Your task to perform on an android device: toggle pop-ups in chrome Image 0: 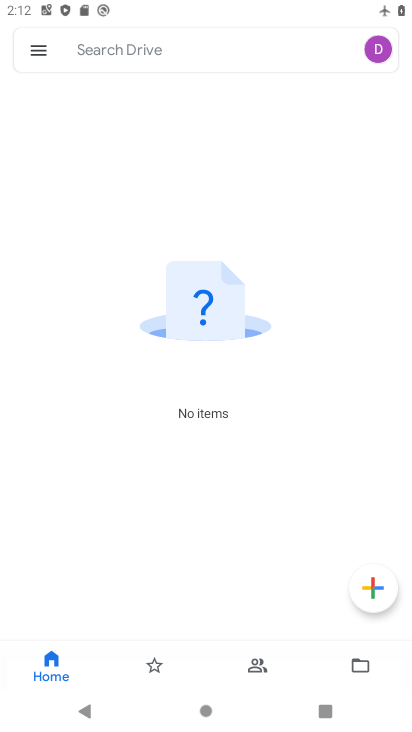
Step 0: press home button
Your task to perform on an android device: toggle pop-ups in chrome Image 1: 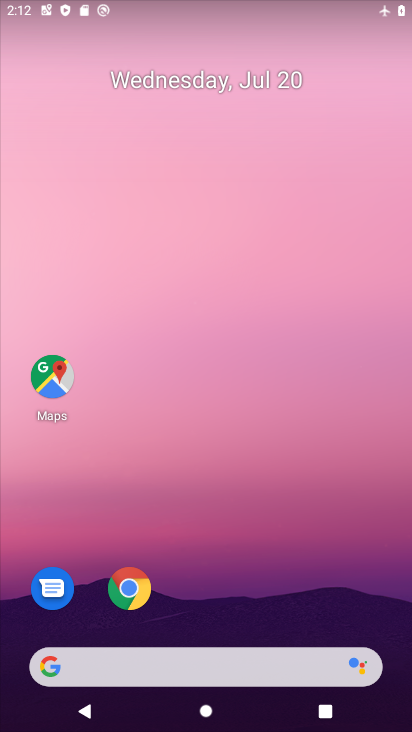
Step 1: drag from (304, 584) to (314, 83)
Your task to perform on an android device: toggle pop-ups in chrome Image 2: 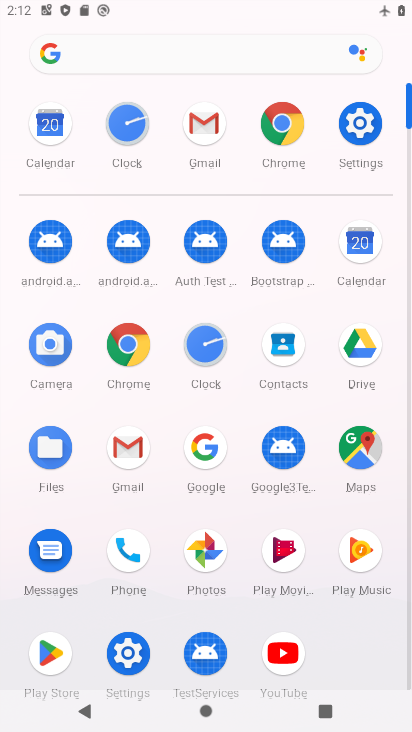
Step 2: click (269, 138)
Your task to perform on an android device: toggle pop-ups in chrome Image 3: 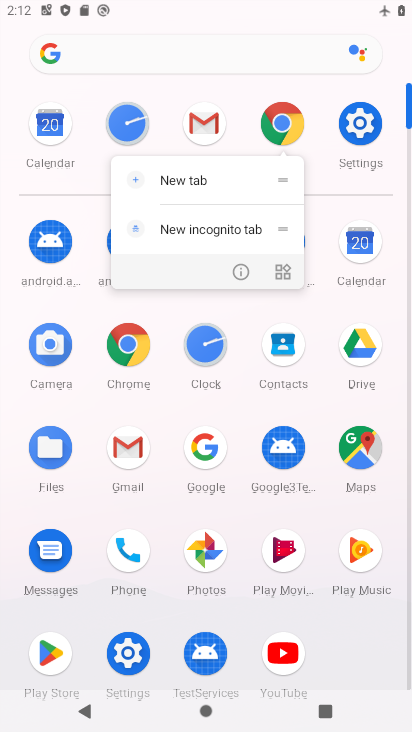
Step 3: click (269, 138)
Your task to perform on an android device: toggle pop-ups in chrome Image 4: 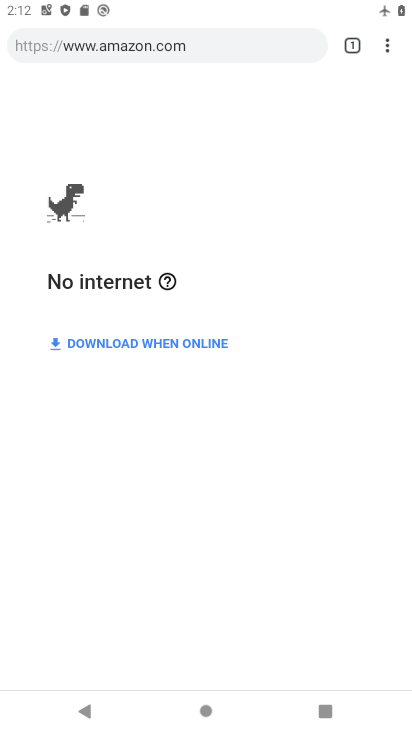
Step 4: drag from (387, 41) to (257, 510)
Your task to perform on an android device: toggle pop-ups in chrome Image 5: 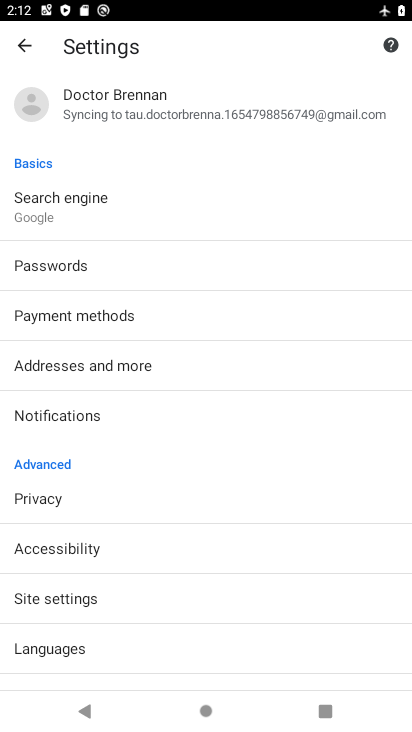
Step 5: drag from (217, 505) to (211, 55)
Your task to perform on an android device: toggle pop-ups in chrome Image 6: 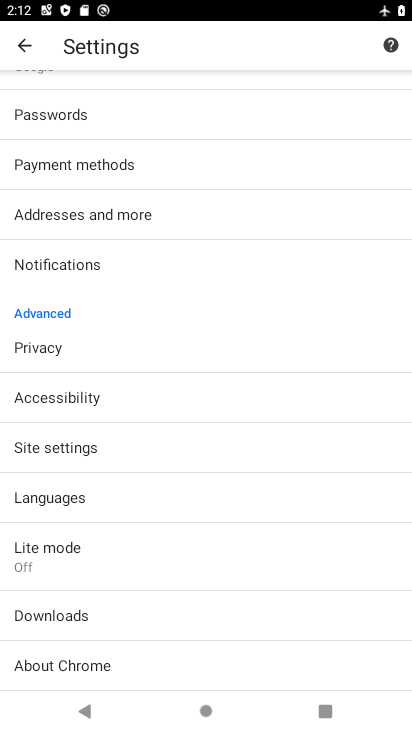
Step 6: click (73, 447)
Your task to perform on an android device: toggle pop-ups in chrome Image 7: 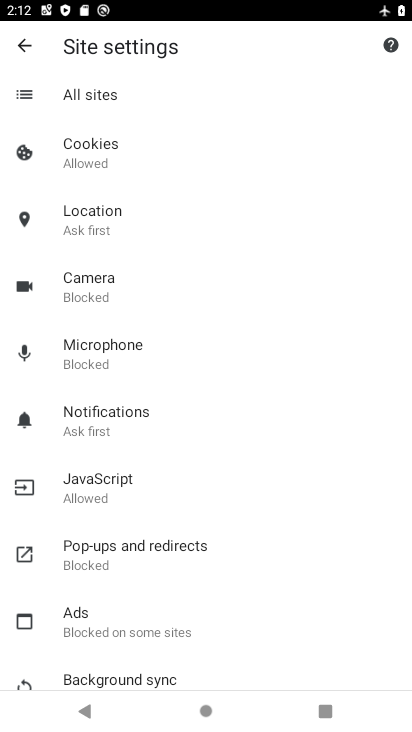
Step 7: click (120, 542)
Your task to perform on an android device: toggle pop-ups in chrome Image 8: 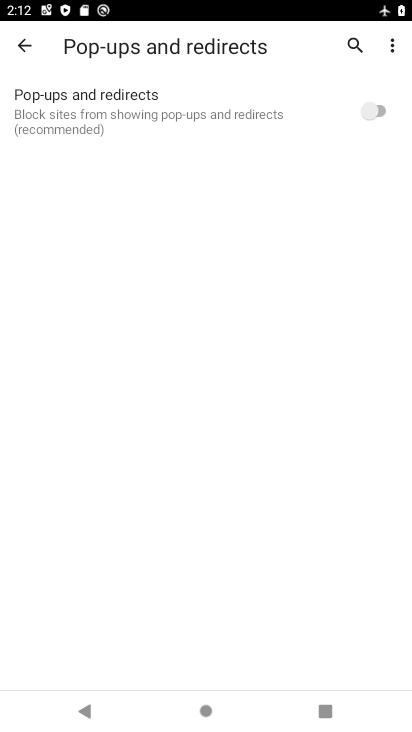
Step 8: click (386, 118)
Your task to perform on an android device: toggle pop-ups in chrome Image 9: 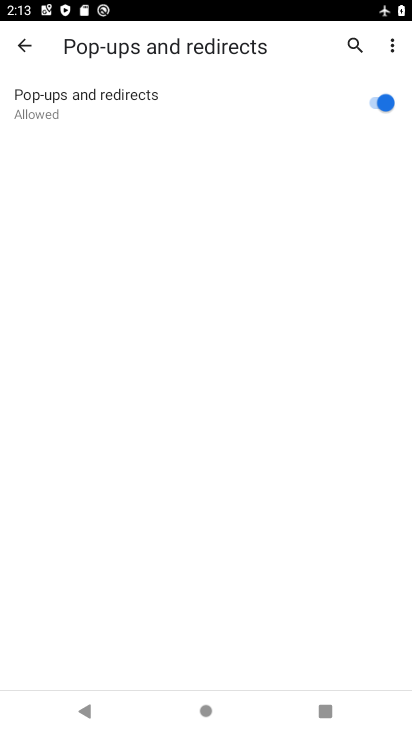
Step 9: task complete